Your task to perform on an android device: delete browsing data in the chrome app Image 0: 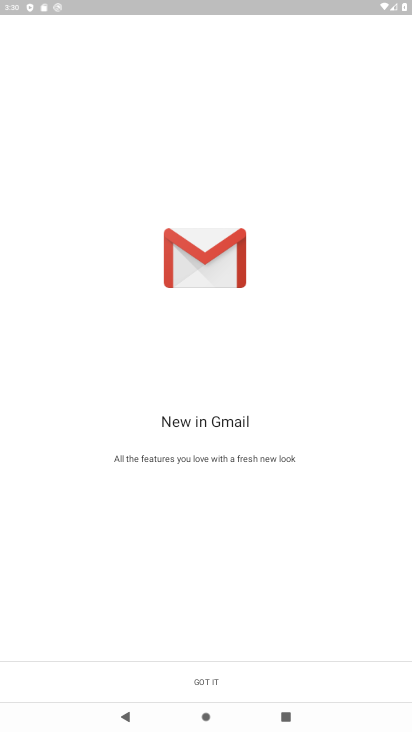
Step 0: press home button
Your task to perform on an android device: delete browsing data in the chrome app Image 1: 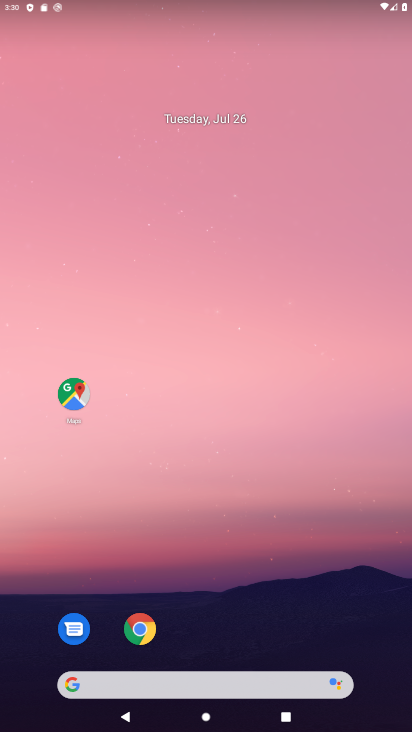
Step 1: click (146, 631)
Your task to perform on an android device: delete browsing data in the chrome app Image 2: 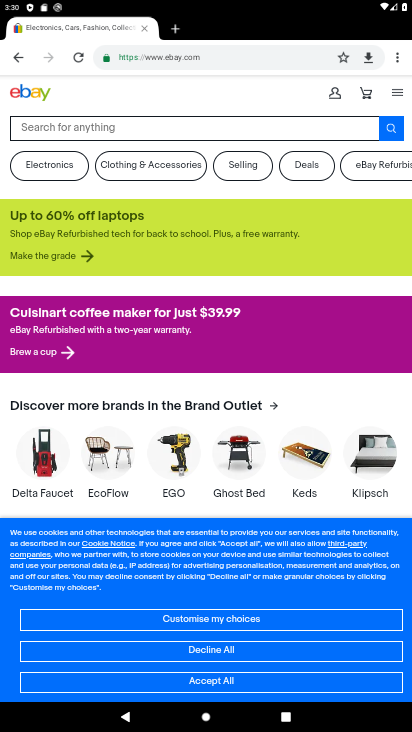
Step 2: click (395, 54)
Your task to perform on an android device: delete browsing data in the chrome app Image 3: 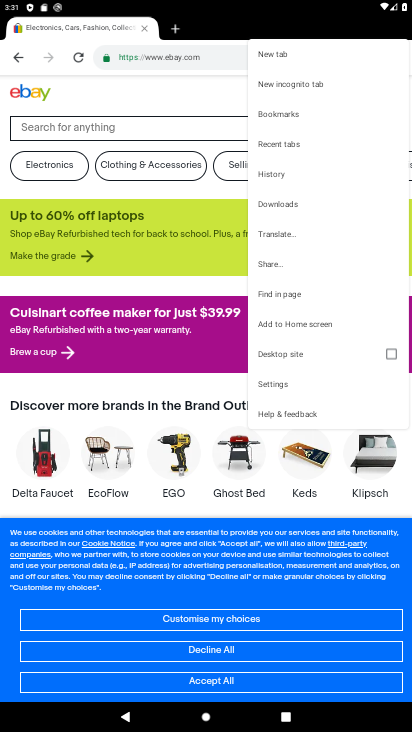
Step 3: click (287, 173)
Your task to perform on an android device: delete browsing data in the chrome app Image 4: 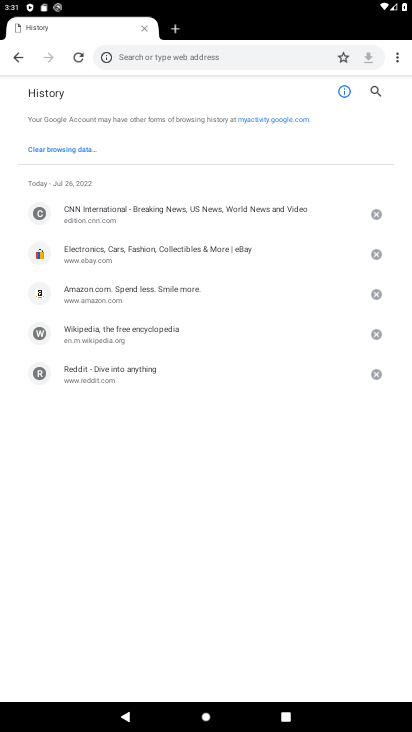
Step 4: click (70, 148)
Your task to perform on an android device: delete browsing data in the chrome app Image 5: 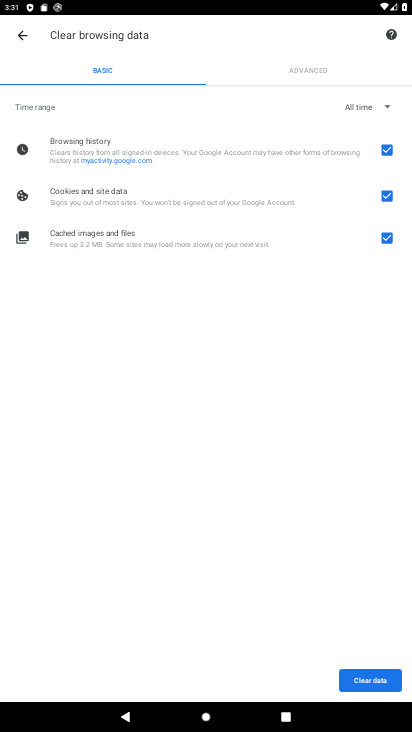
Step 5: task complete